Your task to perform on an android device: Open calendar and show me the first week of next month Image 0: 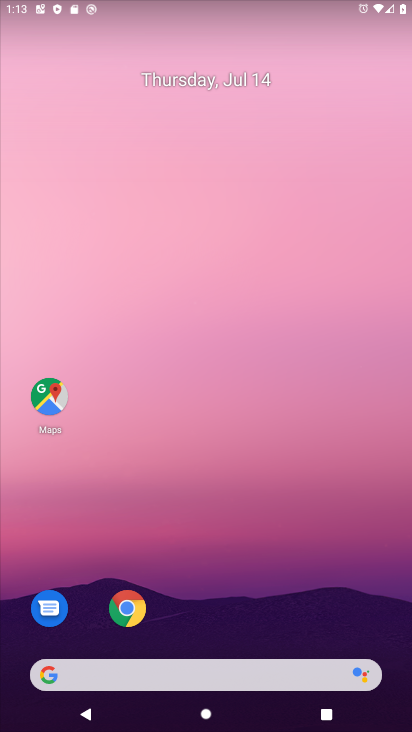
Step 0: drag from (268, 631) to (255, 169)
Your task to perform on an android device: Open calendar and show me the first week of next month Image 1: 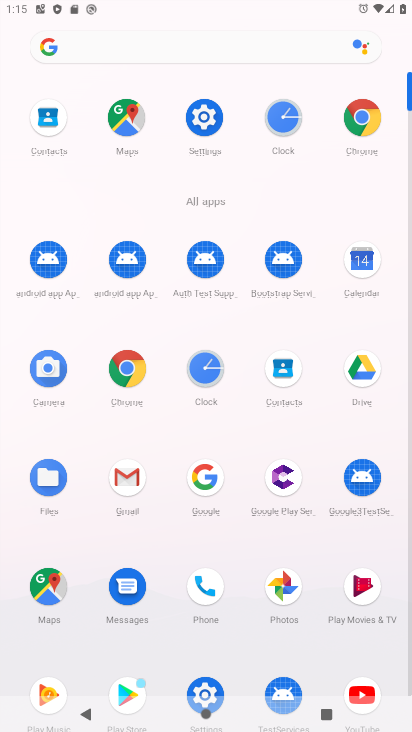
Step 1: click (364, 285)
Your task to perform on an android device: Open calendar and show me the first week of next month Image 2: 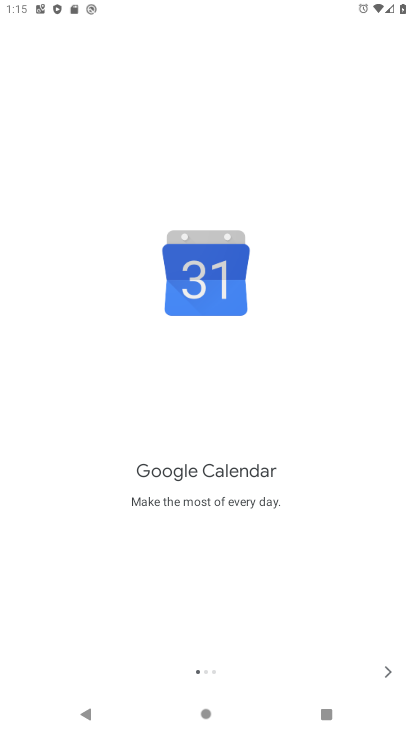
Step 2: click (383, 677)
Your task to perform on an android device: Open calendar and show me the first week of next month Image 3: 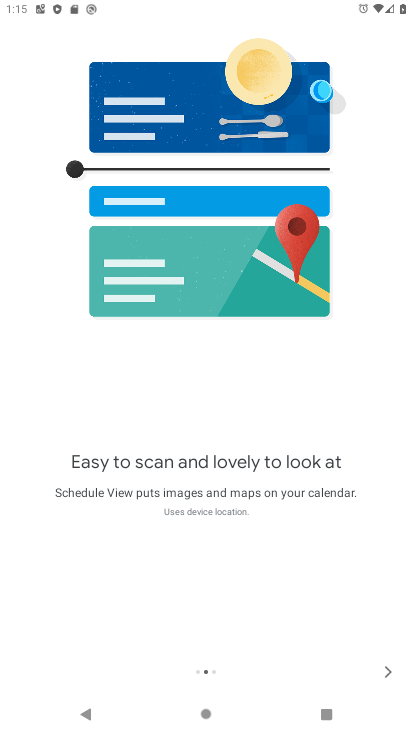
Step 3: click (388, 677)
Your task to perform on an android device: Open calendar and show me the first week of next month Image 4: 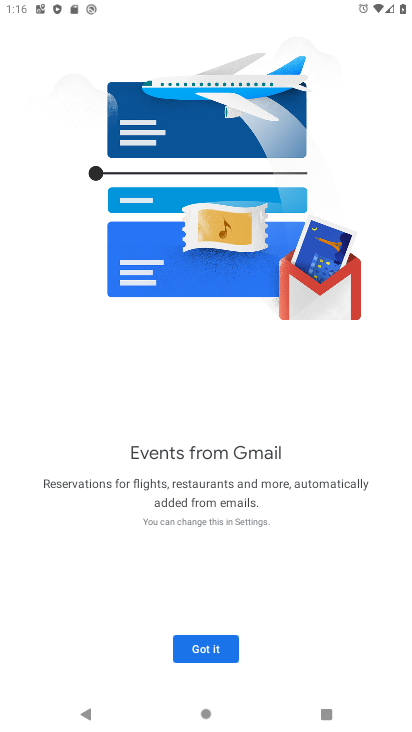
Step 4: click (388, 677)
Your task to perform on an android device: Open calendar and show me the first week of next month Image 5: 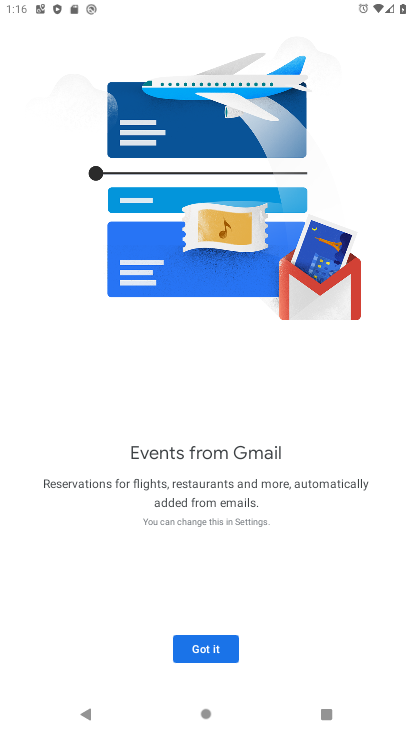
Step 5: click (200, 660)
Your task to perform on an android device: Open calendar and show me the first week of next month Image 6: 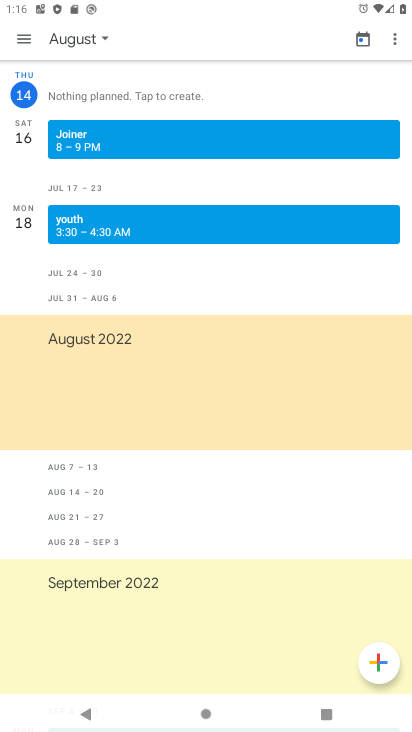
Step 6: click (98, 41)
Your task to perform on an android device: Open calendar and show me the first week of next month Image 7: 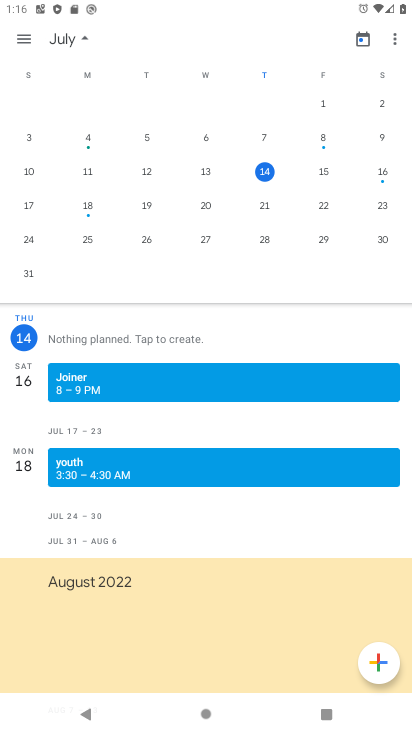
Step 7: drag from (299, 239) to (0, 189)
Your task to perform on an android device: Open calendar and show me the first week of next month Image 8: 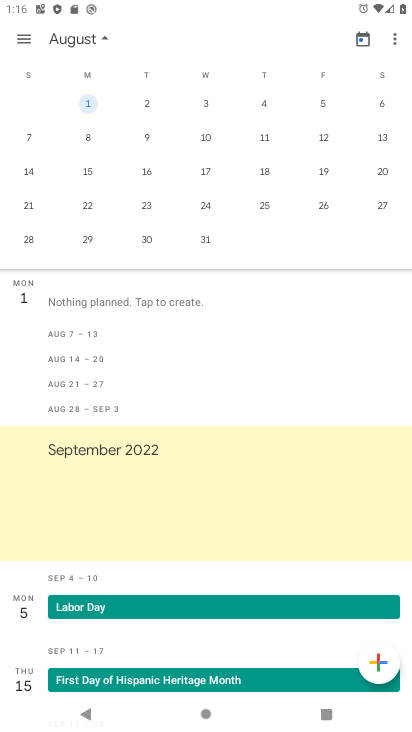
Step 8: click (95, 107)
Your task to perform on an android device: Open calendar and show me the first week of next month Image 9: 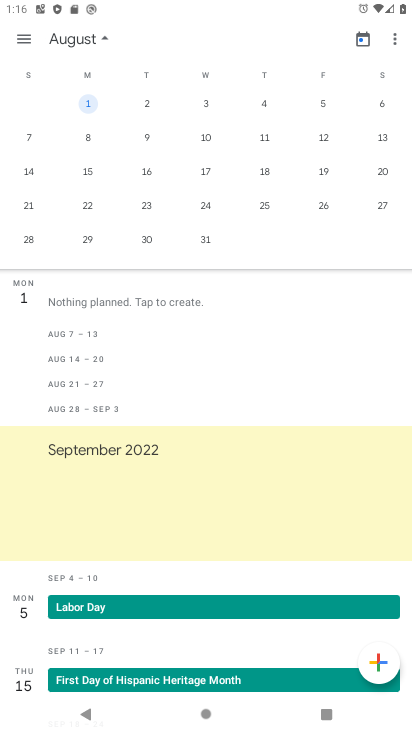
Step 9: task complete